Your task to perform on an android device: clear history in the chrome app Image 0: 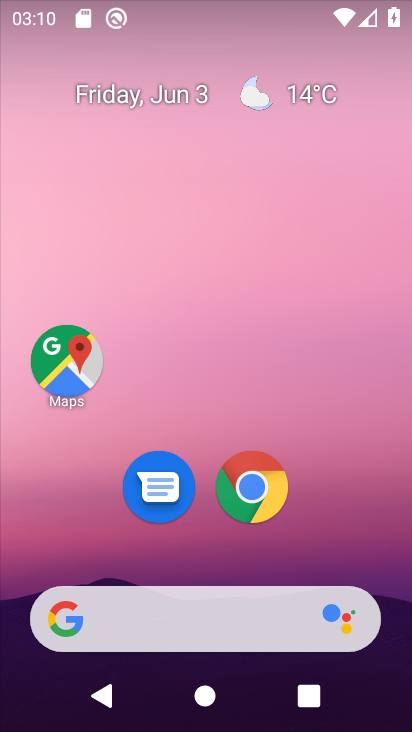
Step 0: drag from (338, 547) to (223, 51)
Your task to perform on an android device: clear history in the chrome app Image 1: 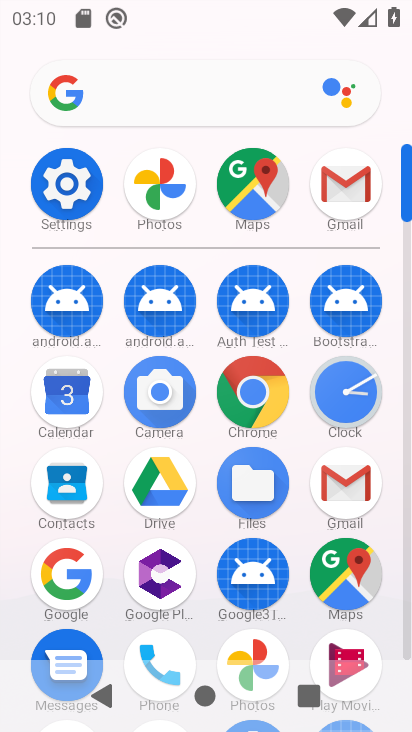
Step 1: click (262, 379)
Your task to perform on an android device: clear history in the chrome app Image 2: 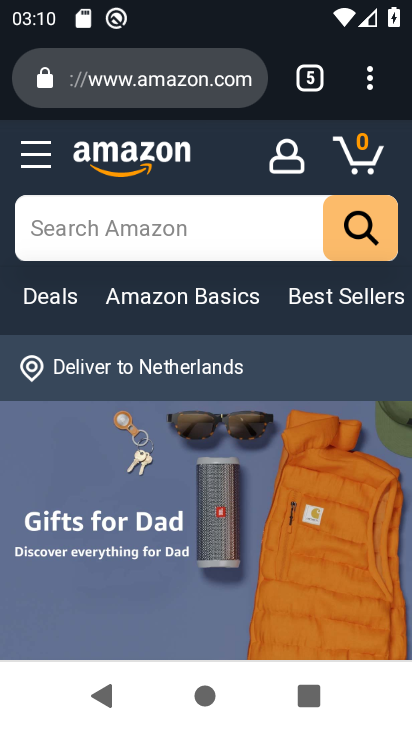
Step 2: click (373, 89)
Your task to perform on an android device: clear history in the chrome app Image 3: 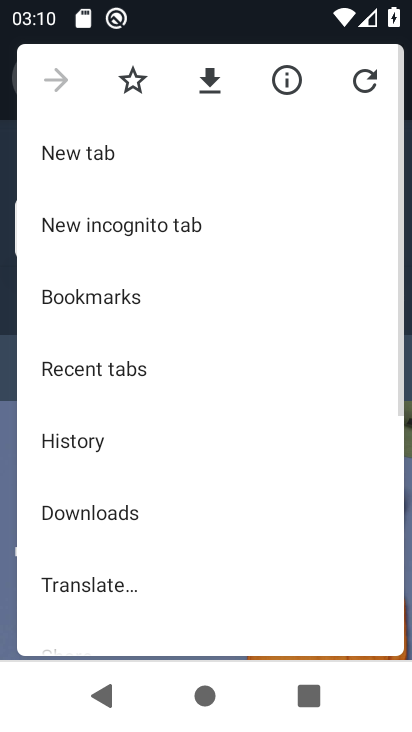
Step 3: click (152, 413)
Your task to perform on an android device: clear history in the chrome app Image 4: 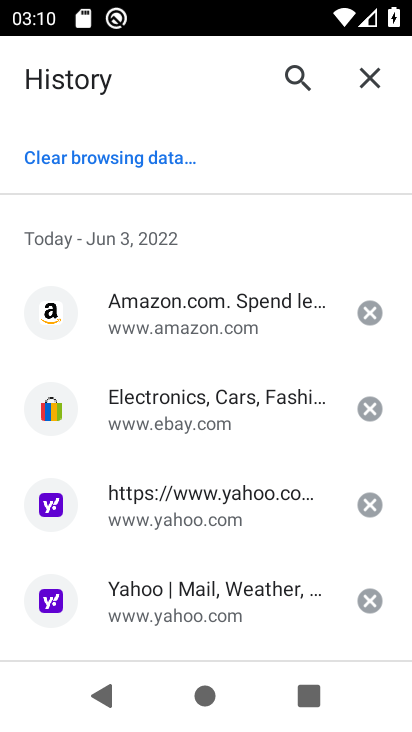
Step 4: click (122, 152)
Your task to perform on an android device: clear history in the chrome app Image 5: 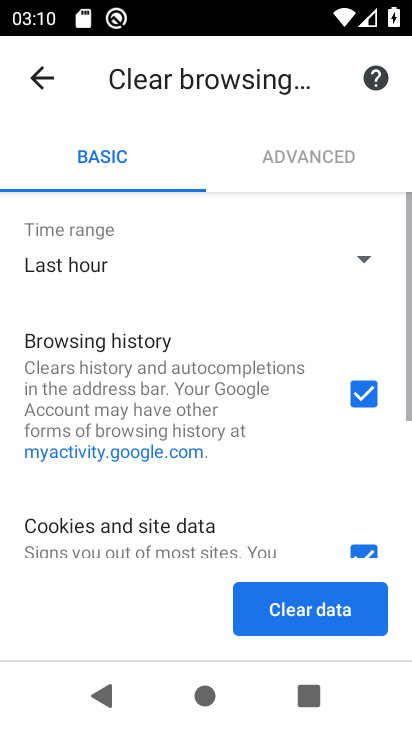
Step 5: click (344, 624)
Your task to perform on an android device: clear history in the chrome app Image 6: 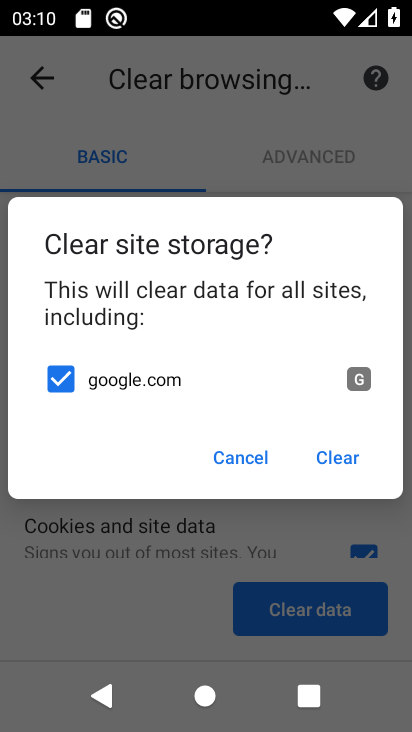
Step 6: click (352, 448)
Your task to perform on an android device: clear history in the chrome app Image 7: 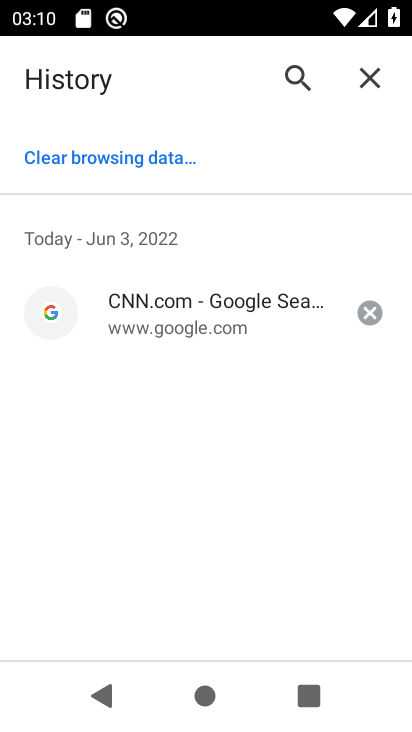
Step 7: task complete